Your task to perform on an android device: Go to calendar. Show me events next week Image 0: 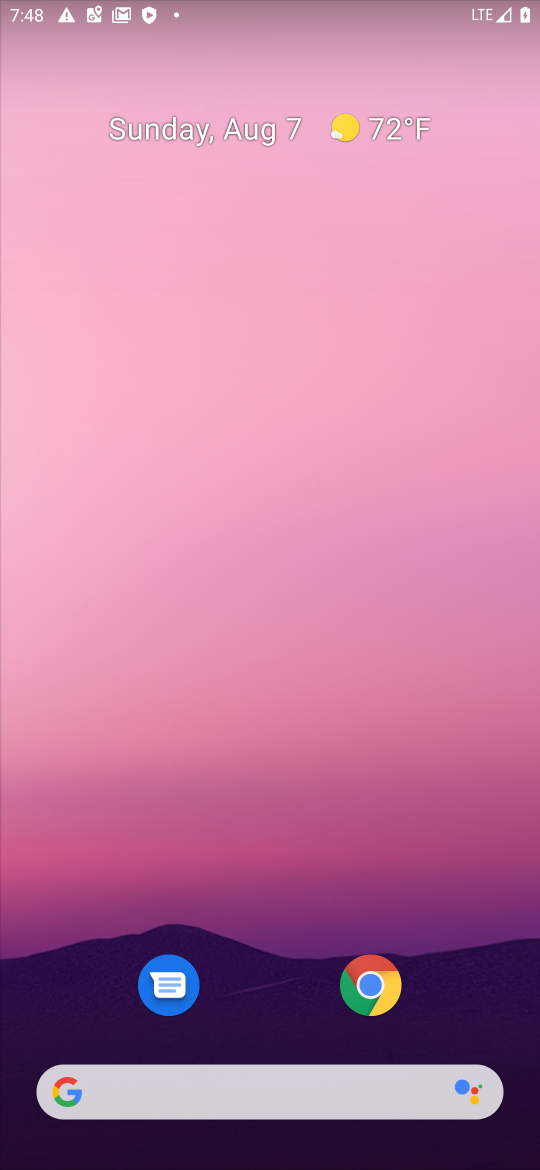
Step 0: drag from (282, 1044) to (272, 385)
Your task to perform on an android device: Go to calendar. Show me events next week Image 1: 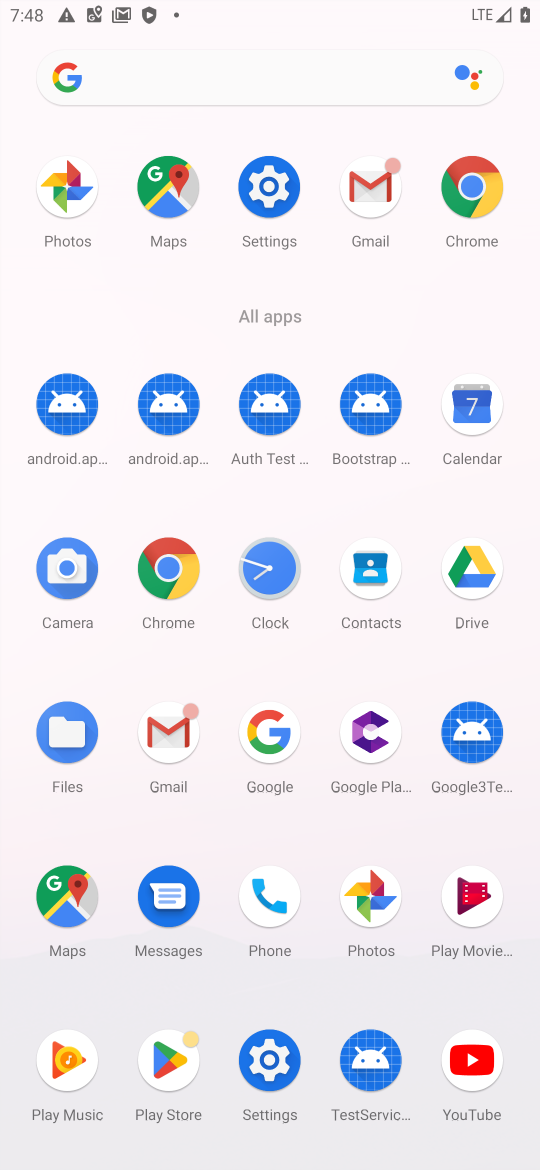
Step 1: click (476, 400)
Your task to perform on an android device: Go to calendar. Show me events next week Image 2: 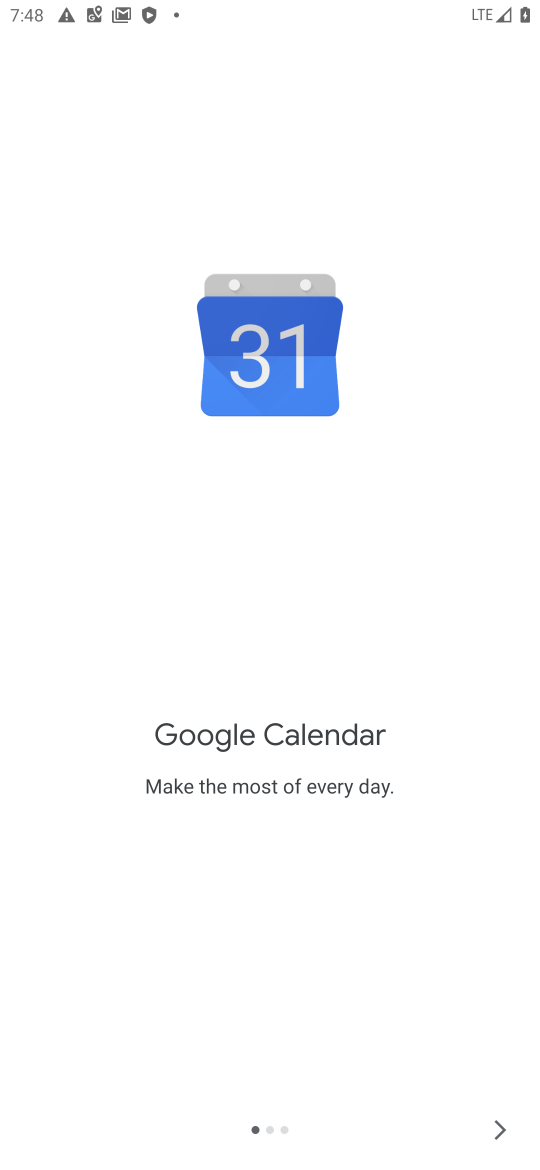
Step 2: click (502, 1129)
Your task to perform on an android device: Go to calendar. Show me events next week Image 3: 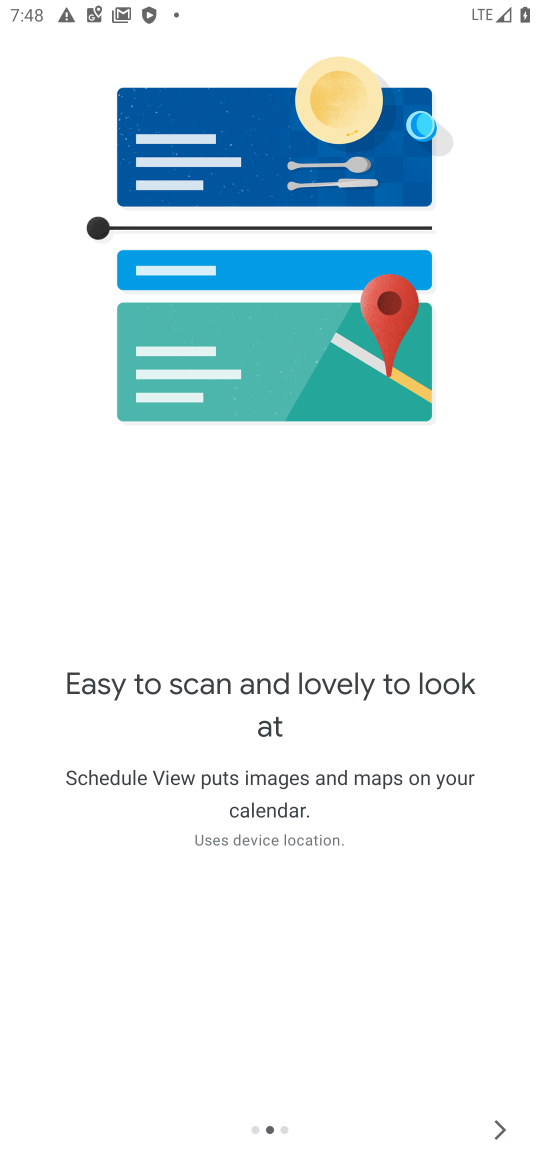
Step 3: click (503, 1127)
Your task to perform on an android device: Go to calendar. Show me events next week Image 4: 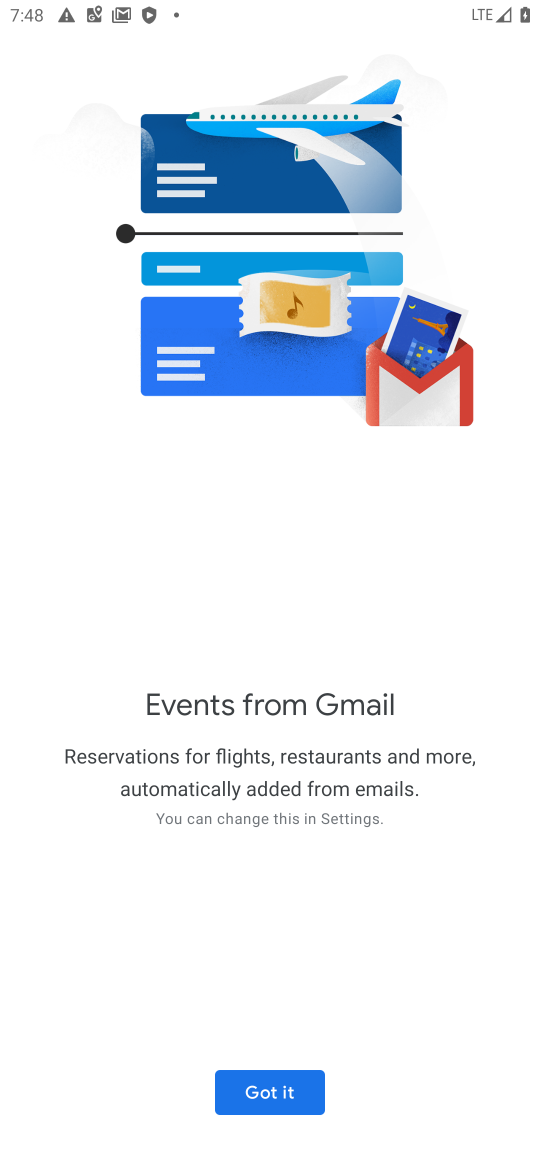
Step 4: click (268, 1077)
Your task to perform on an android device: Go to calendar. Show me events next week Image 5: 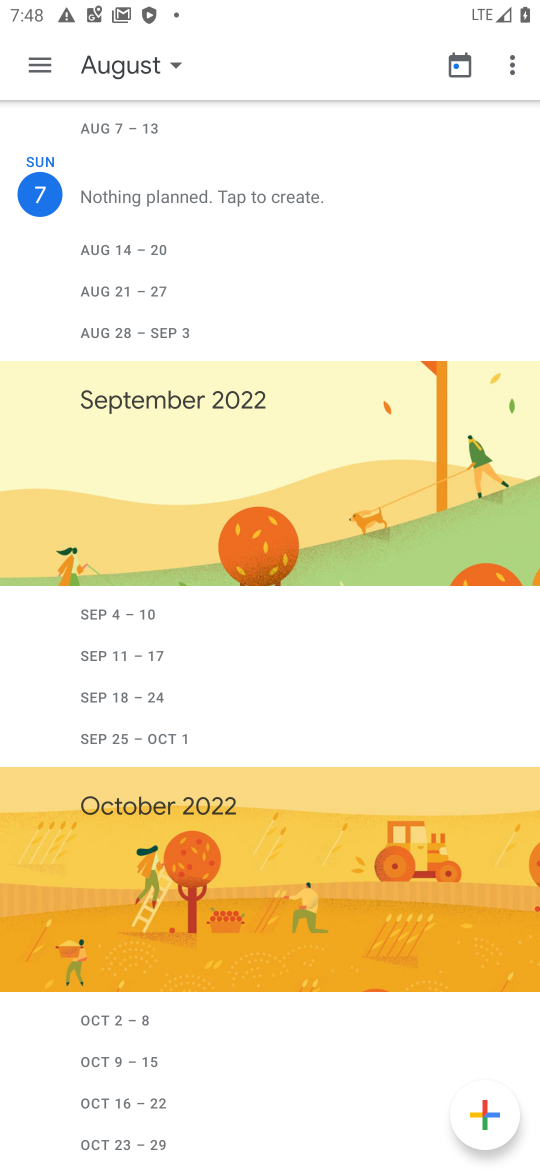
Step 5: click (36, 57)
Your task to perform on an android device: Go to calendar. Show me events next week Image 6: 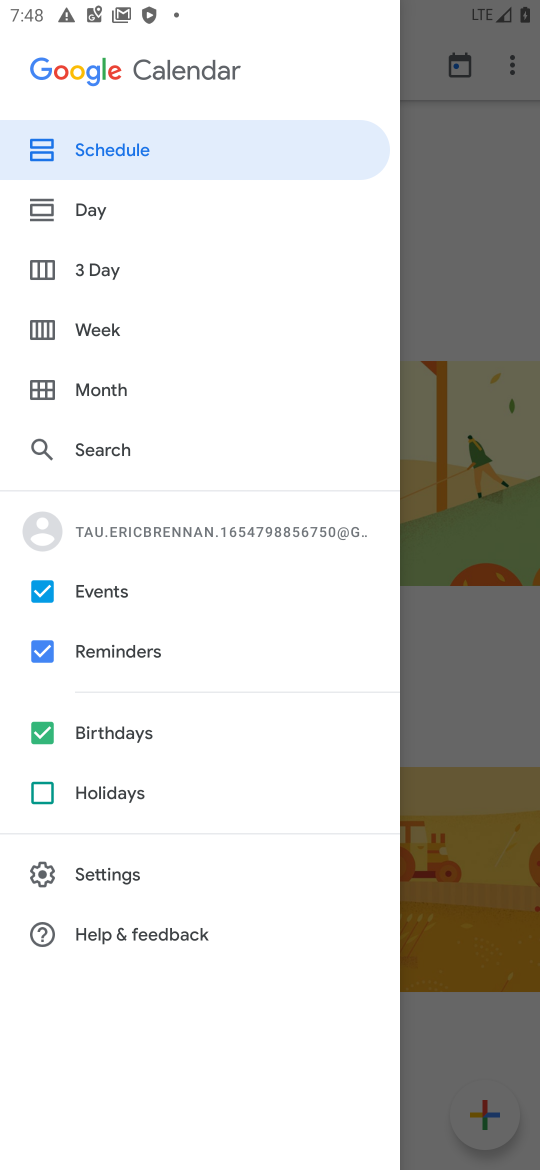
Step 6: click (108, 389)
Your task to perform on an android device: Go to calendar. Show me events next week Image 7: 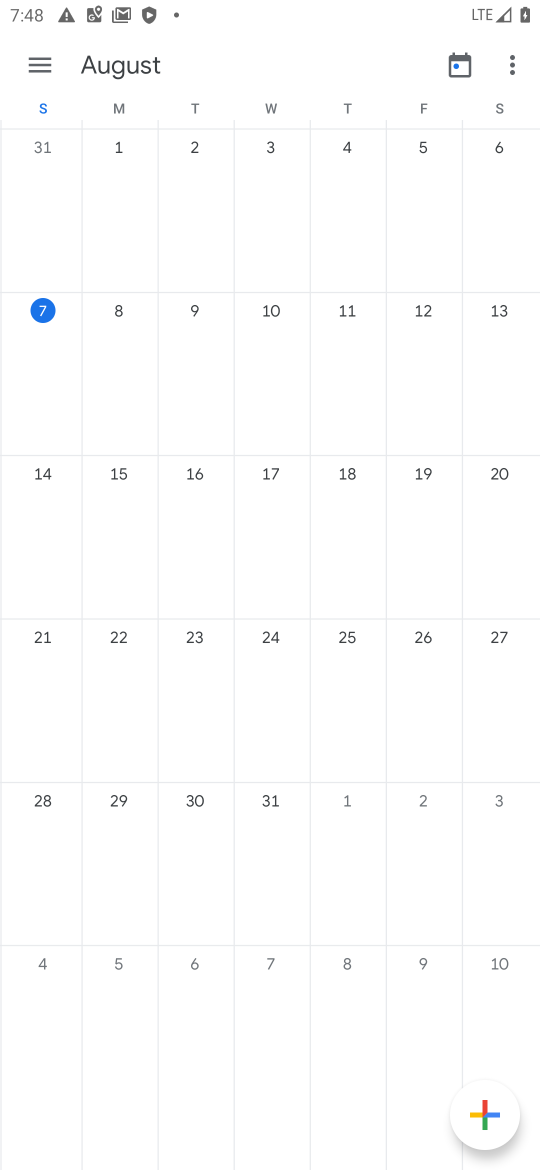
Step 7: click (29, 60)
Your task to perform on an android device: Go to calendar. Show me events next week Image 8: 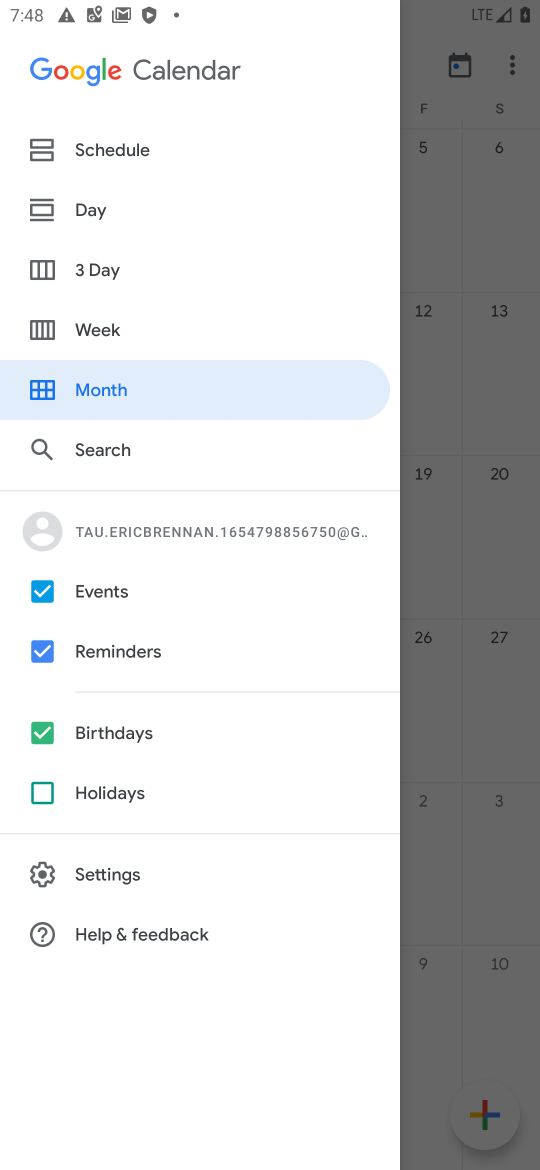
Step 8: click (175, 322)
Your task to perform on an android device: Go to calendar. Show me events next week Image 9: 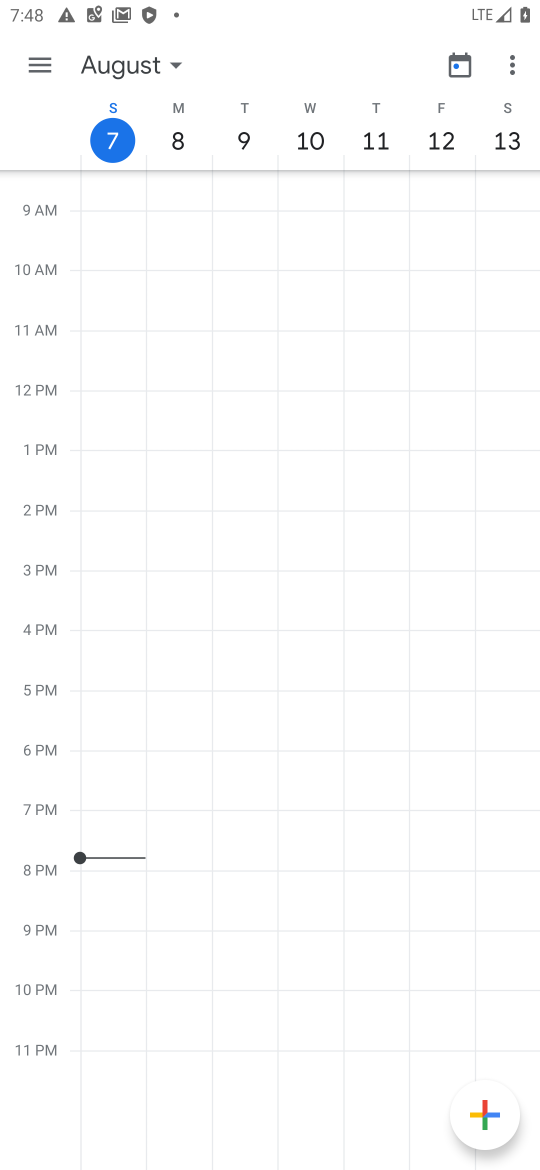
Step 9: task complete